Your task to perform on an android device: Open the web browser Image 0: 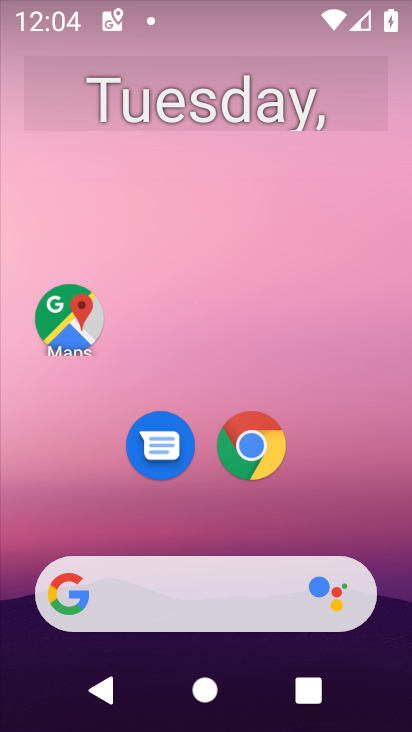
Step 0: click (245, 441)
Your task to perform on an android device: Open the web browser Image 1: 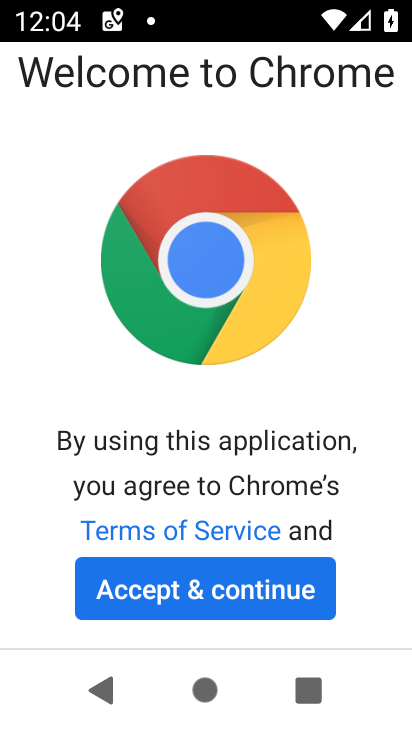
Step 1: click (212, 580)
Your task to perform on an android device: Open the web browser Image 2: 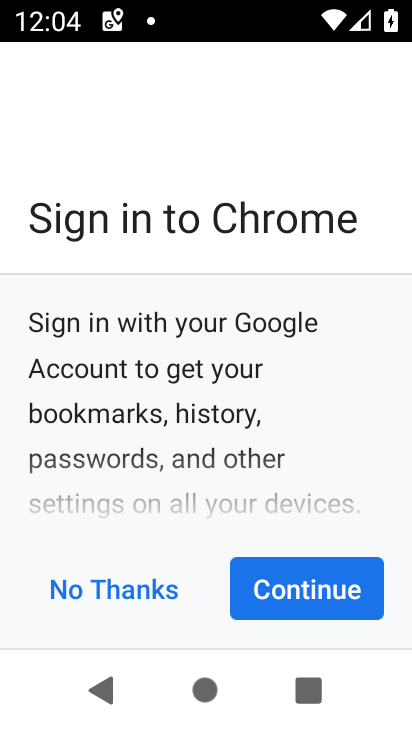
Step 2: click (293, 590)
Your task to perform on an android device: Open the web browser Image 3: 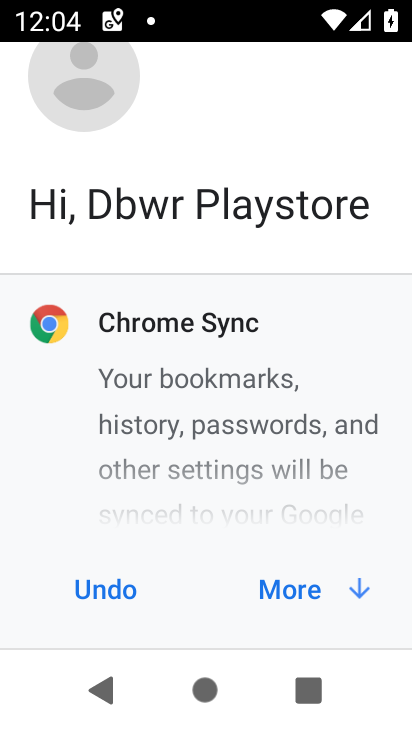
Step 3: click (293, 590)
Your task to perform on an android device: Open the web browser Image 4: 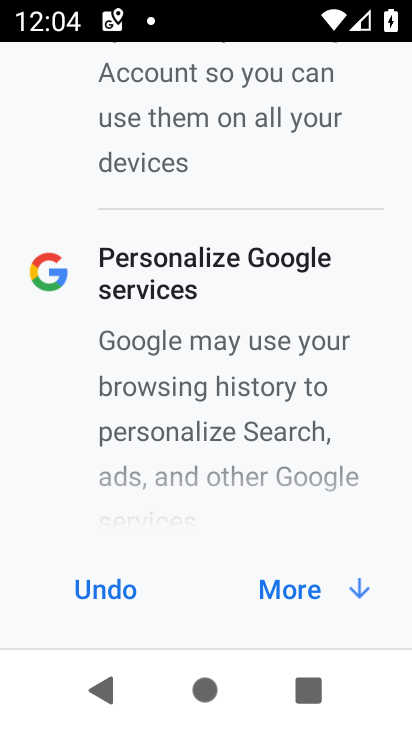
Step 4: click (293, 590)
Your task to perform on an android device: Open the web browser Image 5: 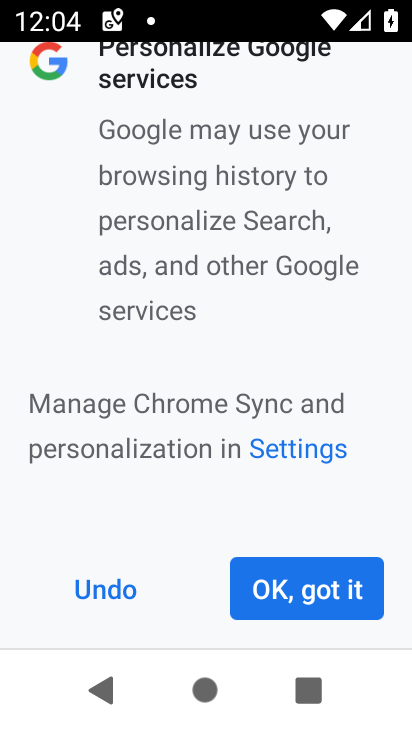
Step 5: click (293, 590)
Your task to perform on an android device: Open the web browser Image 6: 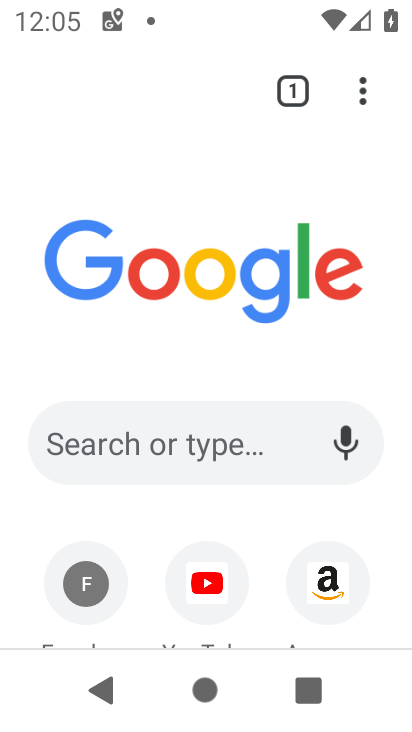
Step 6: task complete